Your task to perform on an android device: What is the recent news? Image 0: 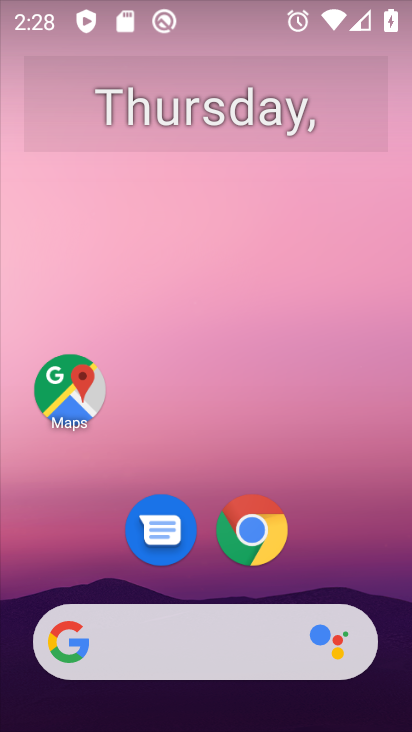
Step 0: click (154, 649)
Your task to perform on an android device: What is the recent news? Image 1: 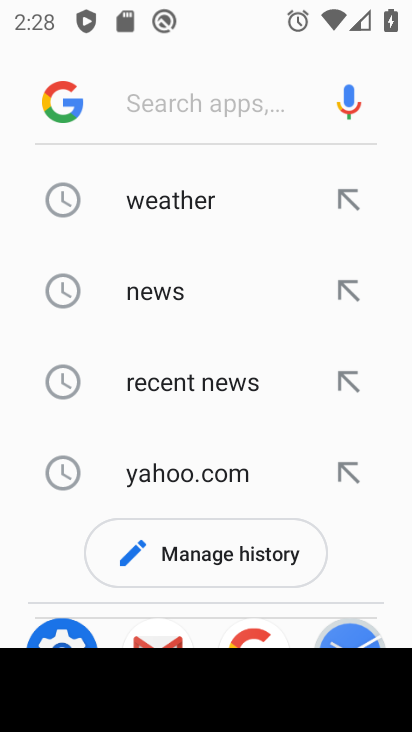
Step 1: click (252, 393)
Your task to perform on an android device: What is the recent news? Image 2: 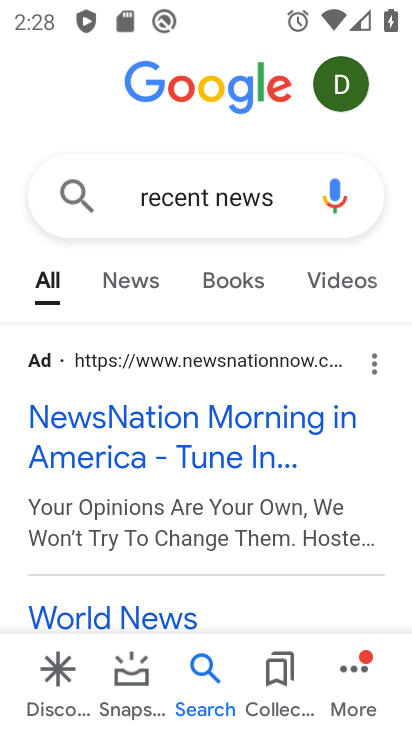
Step 2: task complete